Your task to perform on an android device: delete location history Image 0: 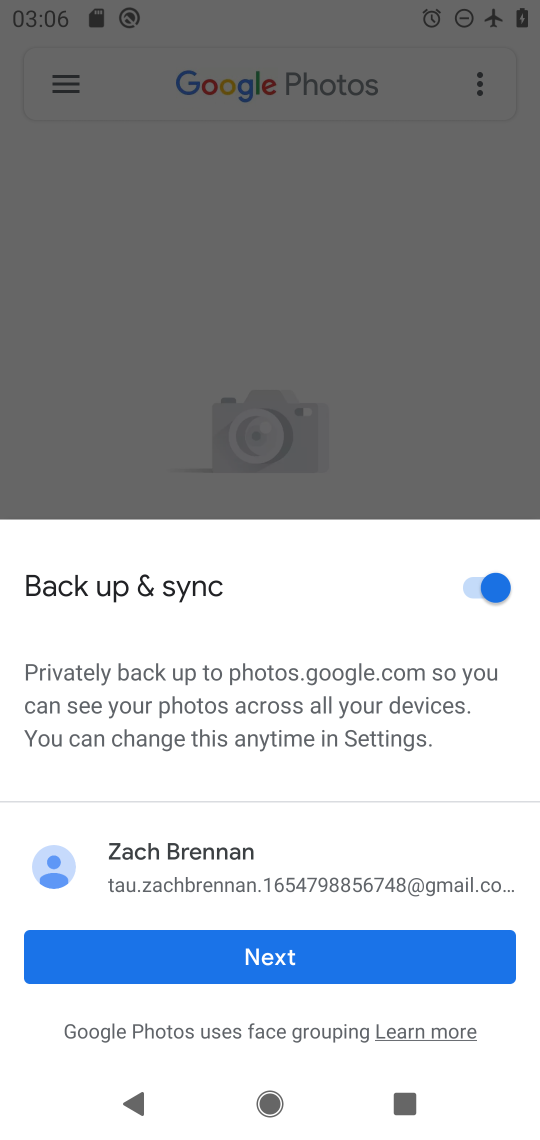
Step 0: press home button
Your task to perform on an android device: delete location history Image 1: 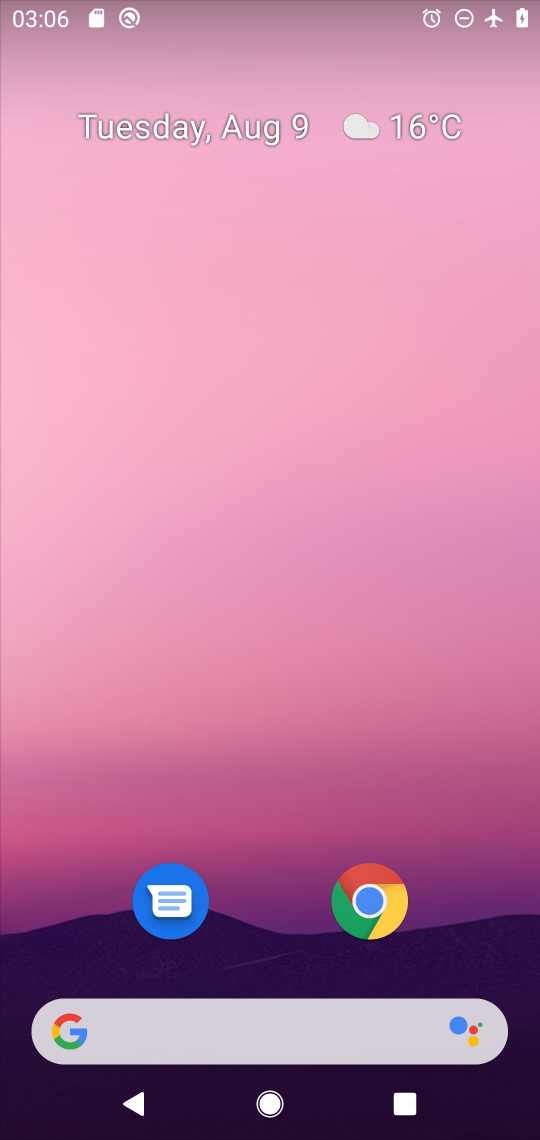
Step 1: drag from (514, 965) to (473, 250)
Your task to perform on an android device: delete location history Image 2: 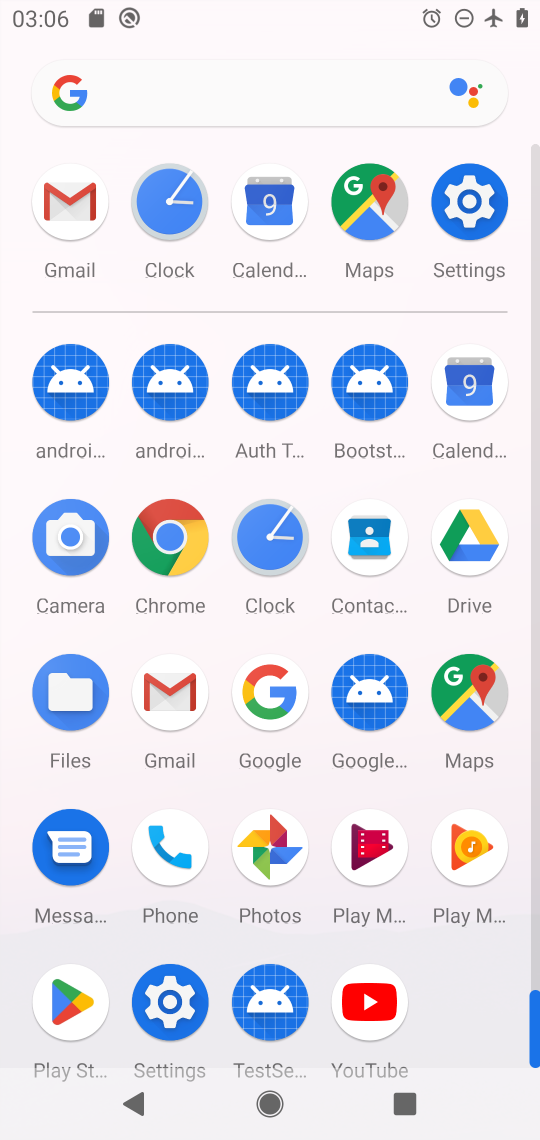
Step 2: click (475, 685)
Your task to perform on an android device: delete location history Image 3: 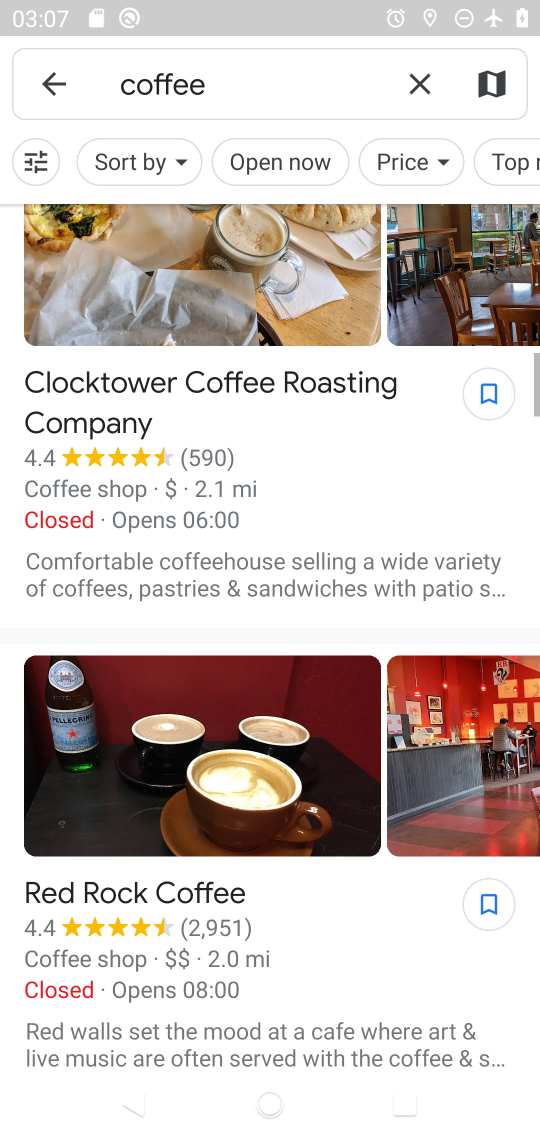
Step 3: click (411, 82)
Your task to perform on an android device: delete location history Image 4: 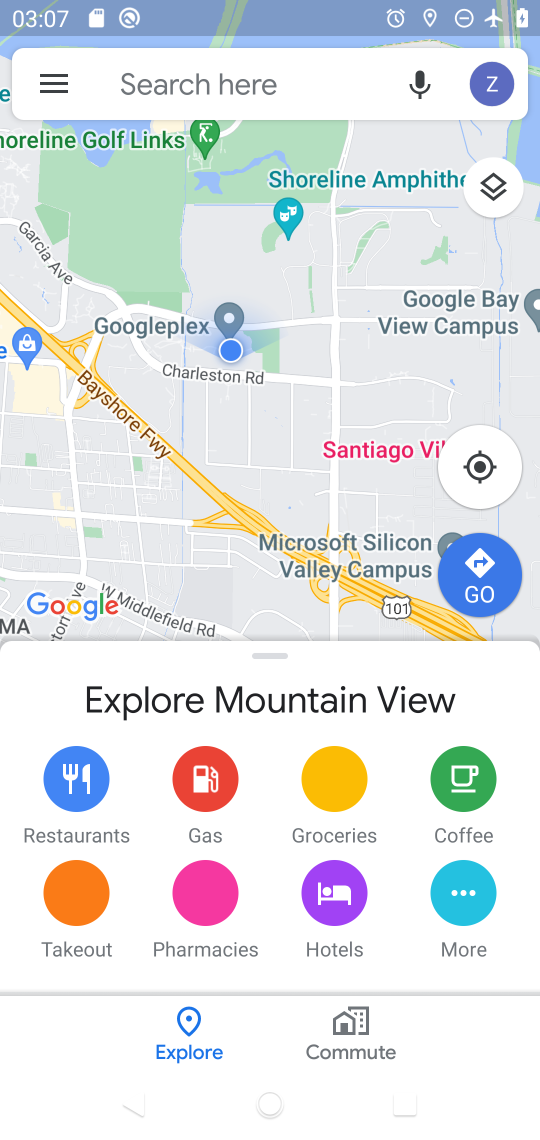
Step 4: click (61, 79)
Your task to perform on an android device: delete location history Image 5: 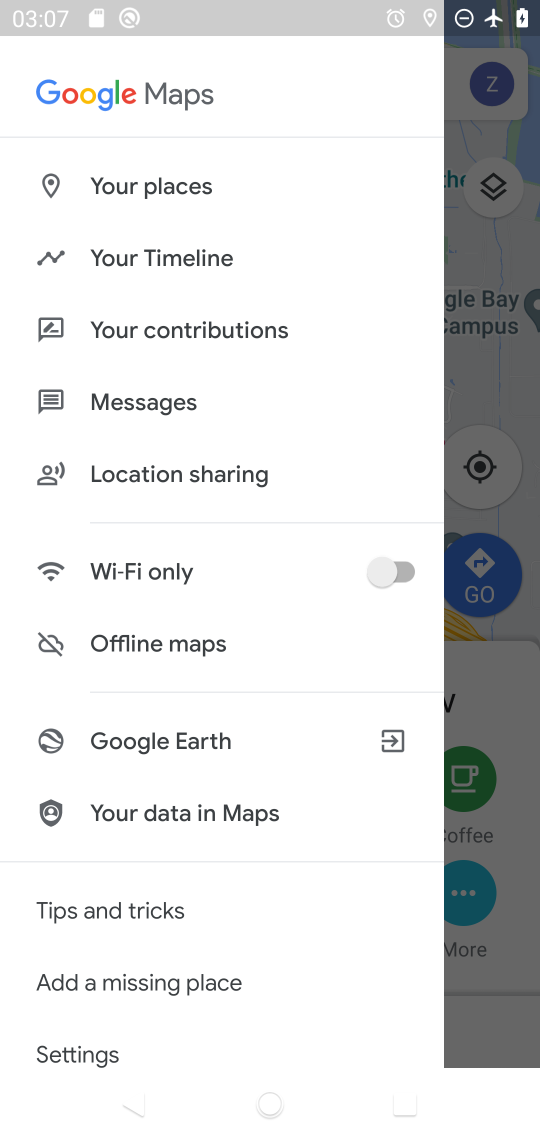
Step 5: drag from (239, 977) to (279, 546)
Your task to perform on an android device: delete location history Image 6: 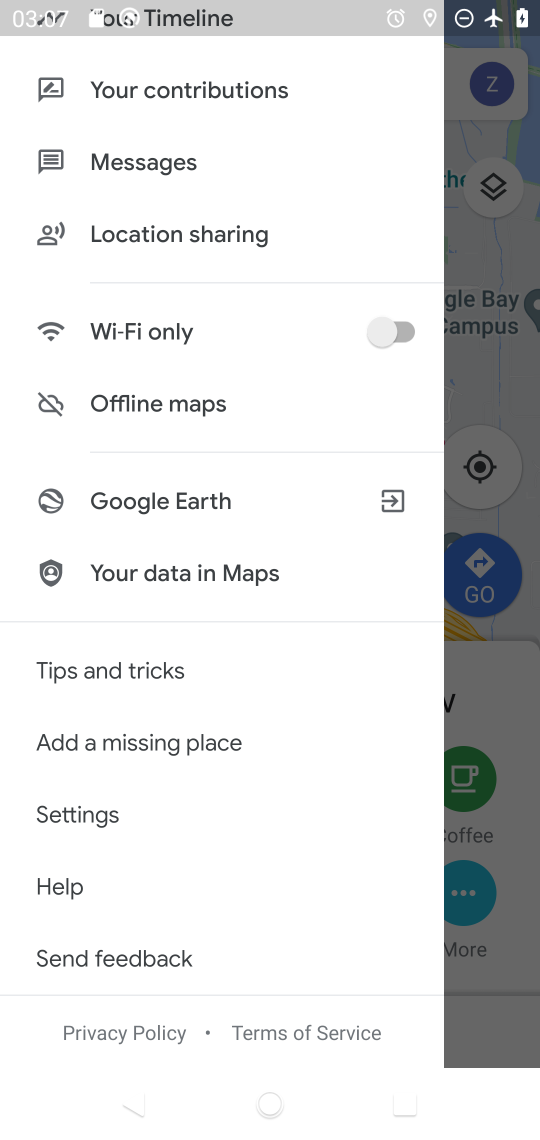
Step 6: click (59, 807)
Your task to perform on an android device: delete location history Image 7: 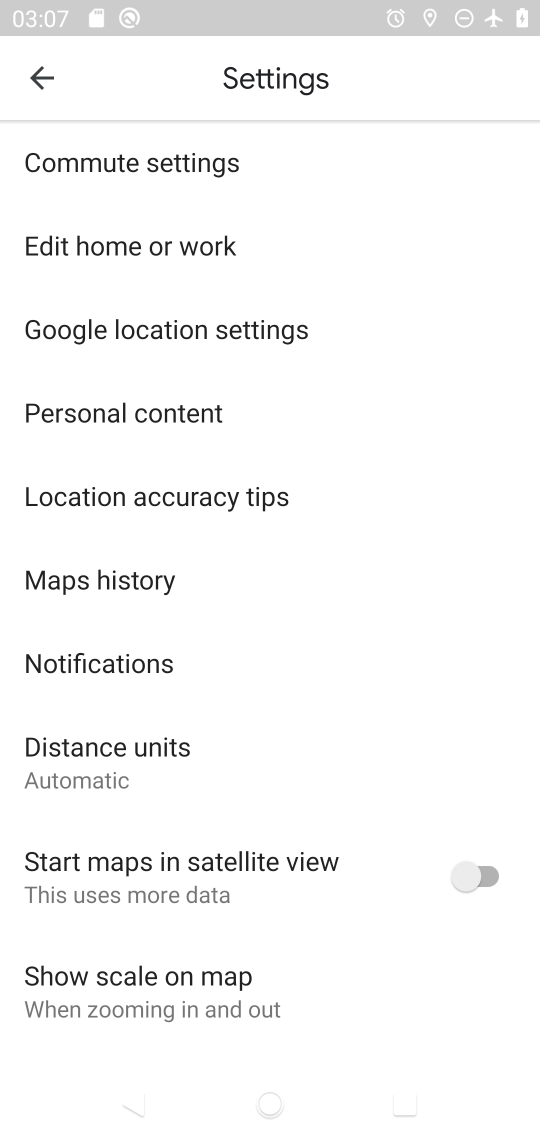
Step 7: click (138, 415)
Your task to perform on an android device: delete location history Image 8: 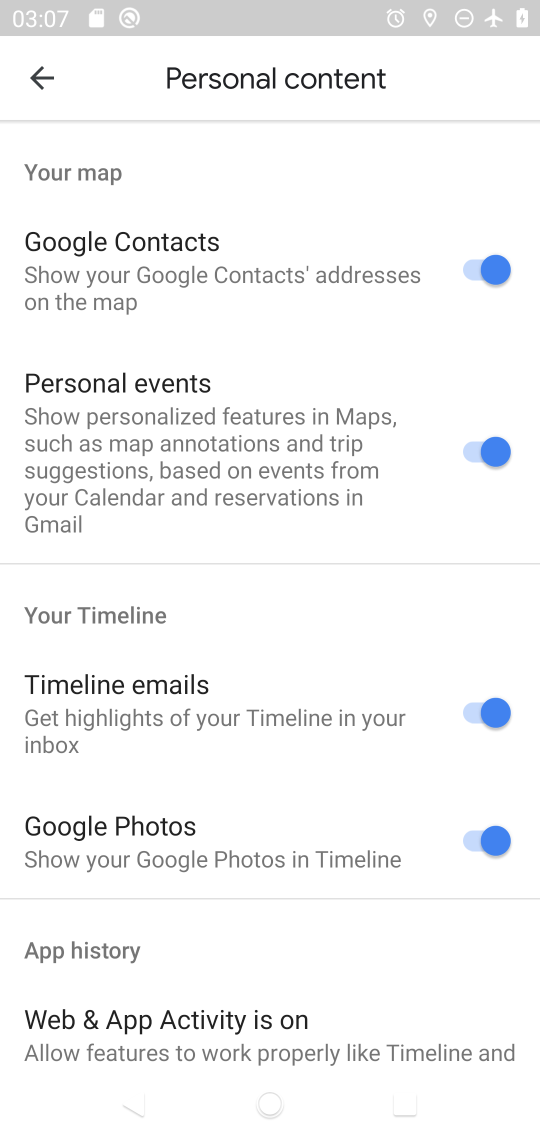
Step 8: drag from (359, 974) to (396, 296)
Your task to perform on an android device: delete location history Image 9: 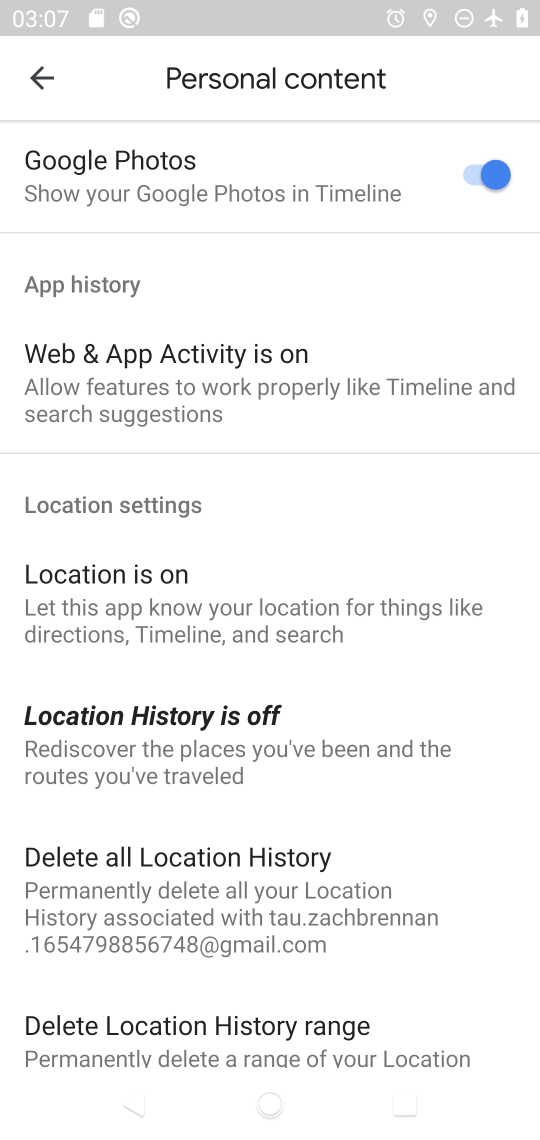
Step 9: click (126, 870)
Your task to perform on an android device: delete location history Image 10: 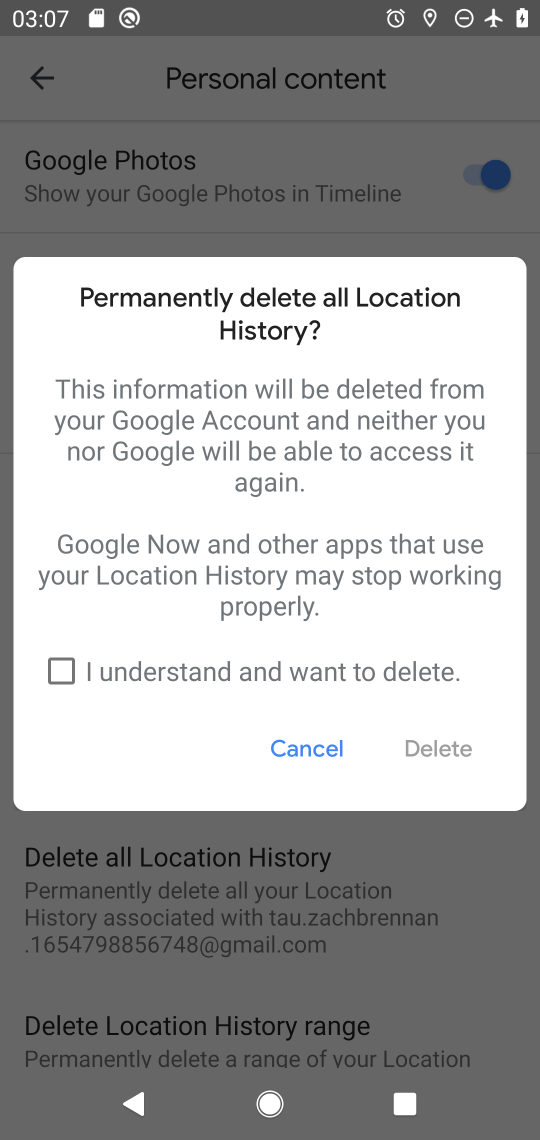
Step 10: click (65, 670)
Your task to perform on an android device: delete location history Image 11: 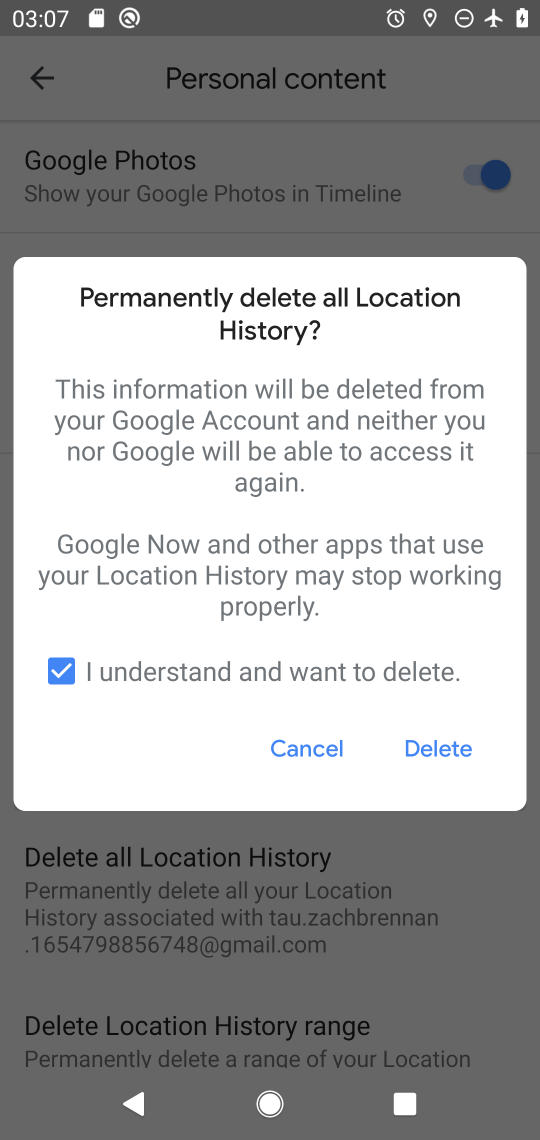
Step 11: click (441, 748)
Your task to perform on an android device: delete location history Image 12: 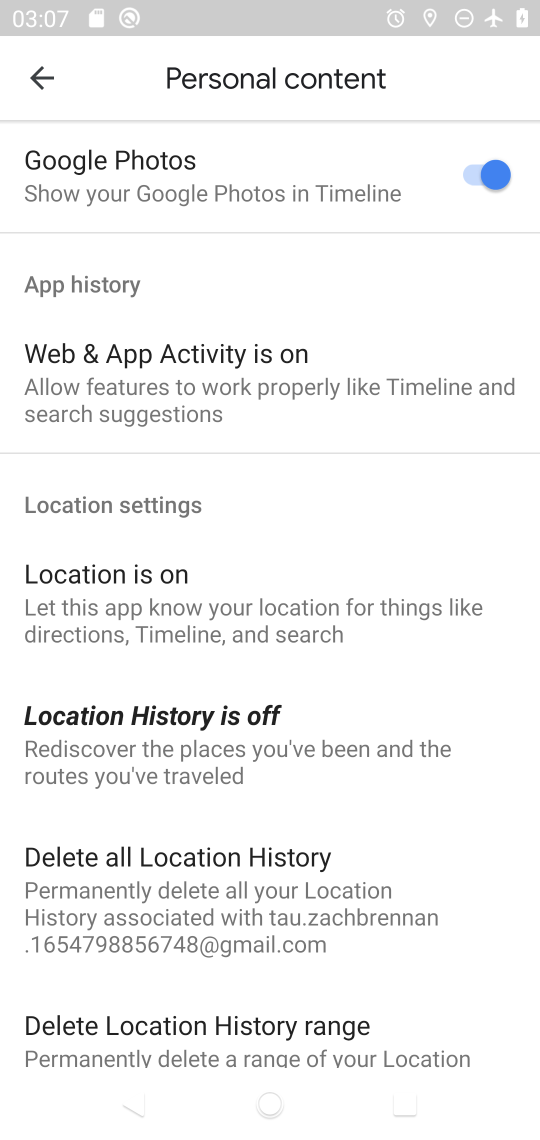
Step 12: task complete